Your task to perform on an android device: turn off wifi Image 0: 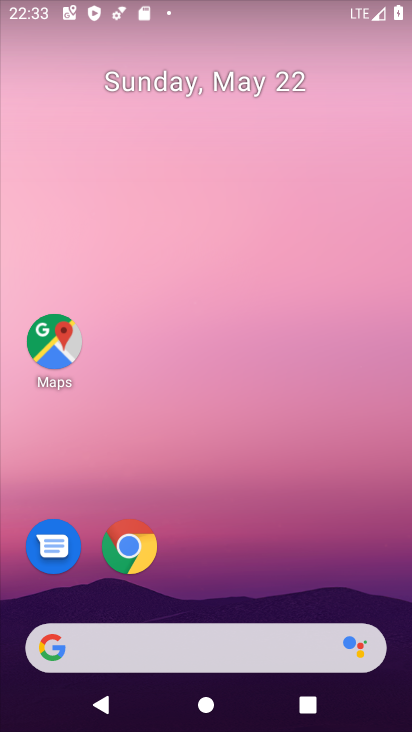
Step 0: click (386, 99)
Your task to perform on an android device: turn off wifi Image 1: 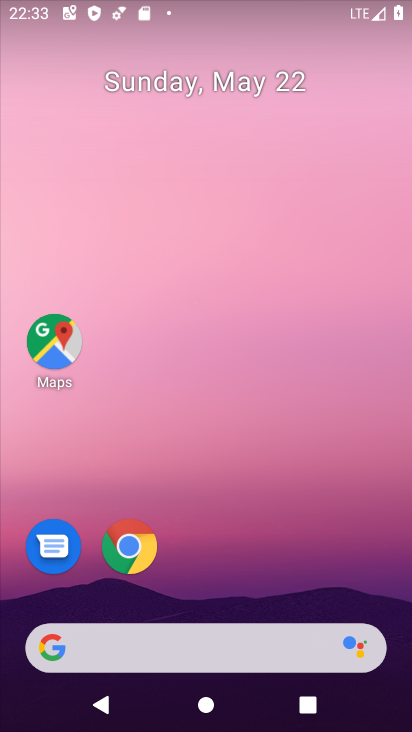
Step 1: drag from (192, 573) to (222, 29)
Your task to perform on an android device: turn off wifi Image 2: 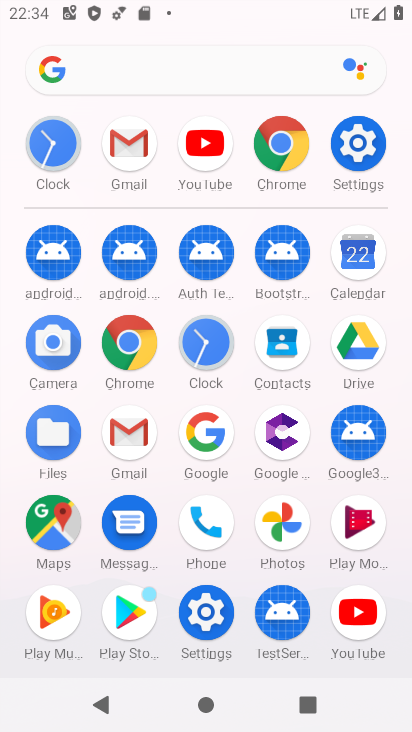
Step 2: click (357, 142)
Your task to perform on an android device: turn off wifi Image 3: 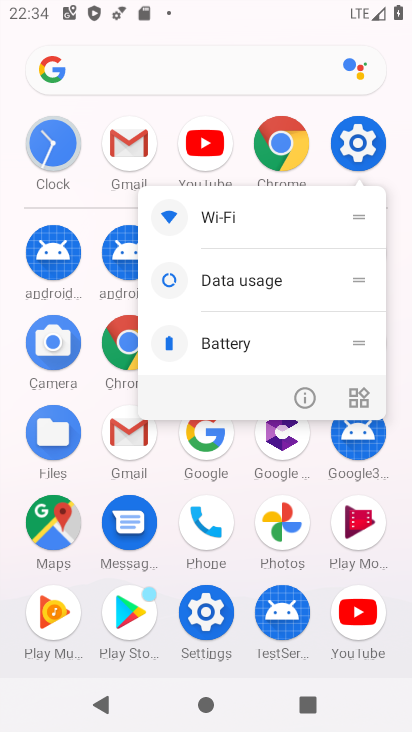
Step 3: click (296, 394)
Your task to perform on an android device: turn off wifi Image 4: 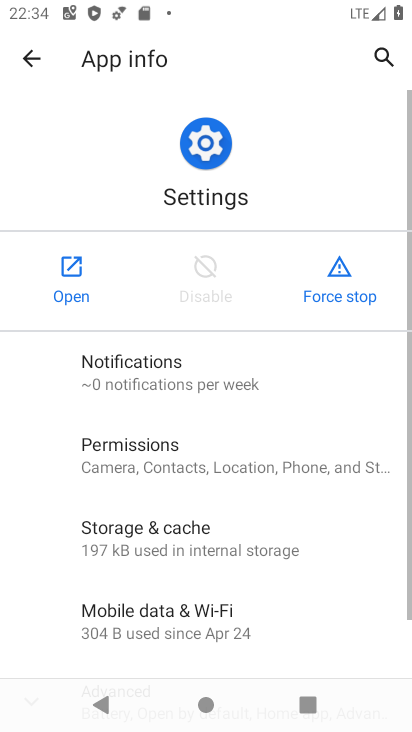
Step 4: click (77, 274)
Your task to perform on an android device: turn off wifi Image 5: 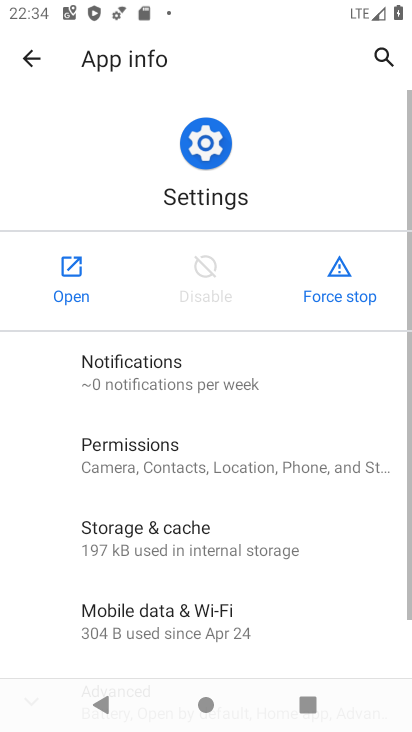
Step 5: click (77, 274)
Your task to perform on an android device: turn off wifi Image 6: 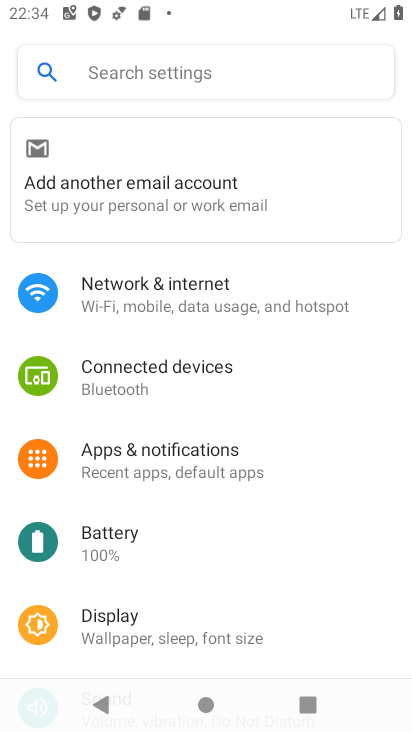
Step 6: click (142, 287)
Your task to perform on an android device: turn off wifi Image 7: 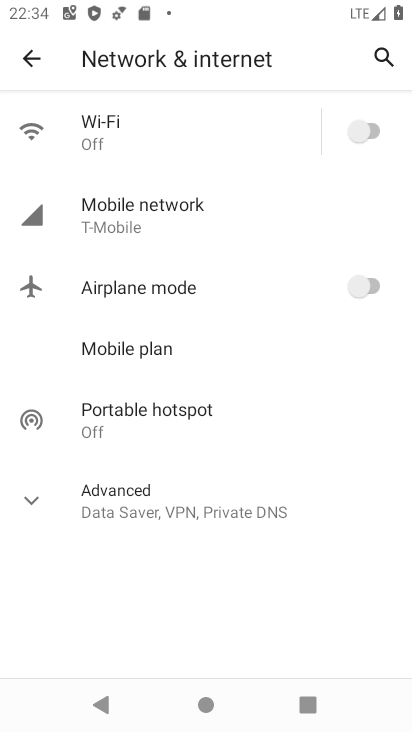
Step 7: click (219, 141)
Your task to perform on an android device: turn off wifi Image 8: 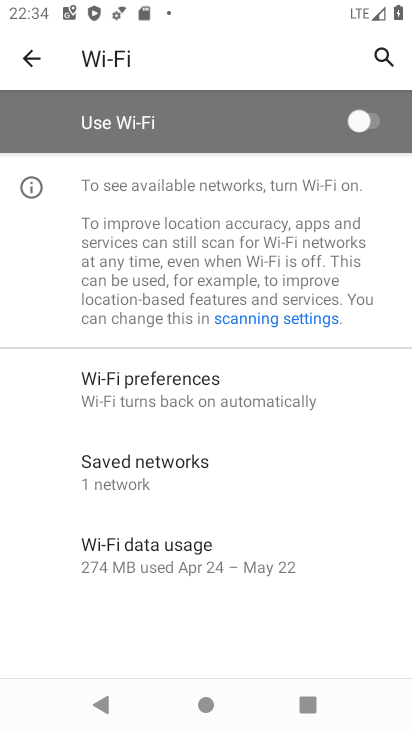
Step 8: task complete